Your task to perform on an android device: open device folders in google photos Image 0: 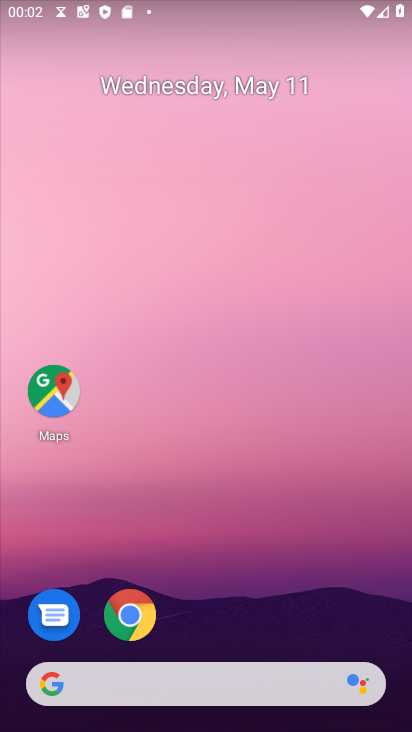
Step 0: drag from (217, 539) to (315, 65)
Your task to perform on an android device: open device folders in google photos Image 1: 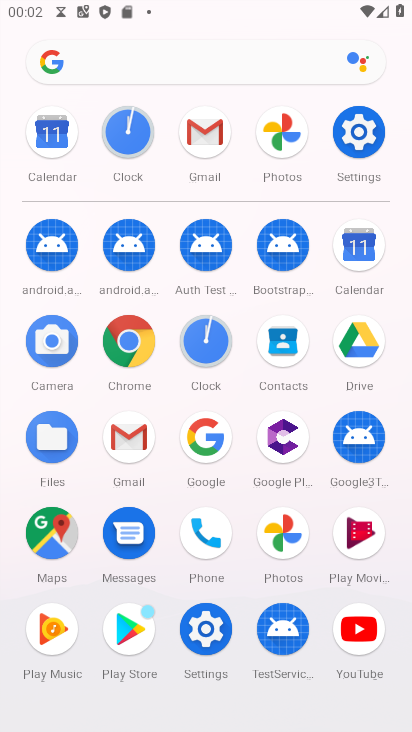
Step 1: click (288, 129)
Your task to perform on an android device: open device folders in google photos Image 2: 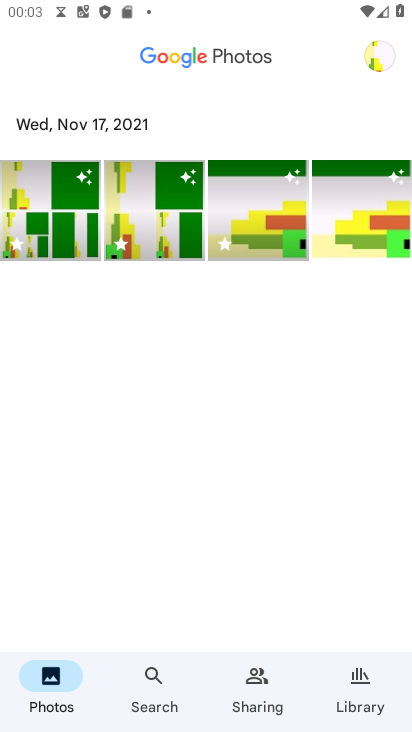
Step 2: click (255, 677)
Your task to perform on an android device: open device folders in google photos Image 3: 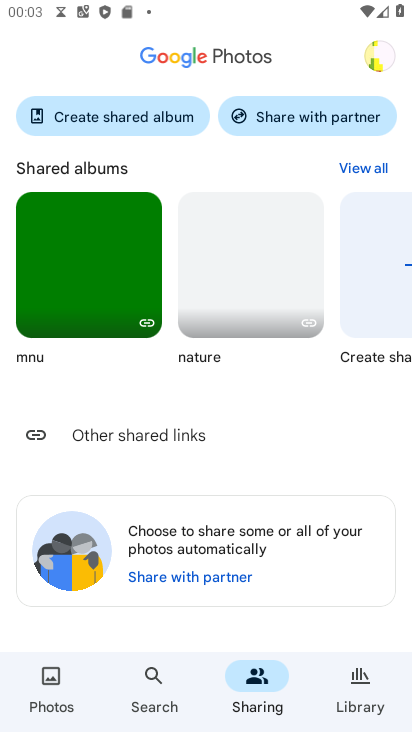
Step 3: drag from (165, 489) to (207, 439)
Your task to perform on an android device: open device folders in google photos Image 4: 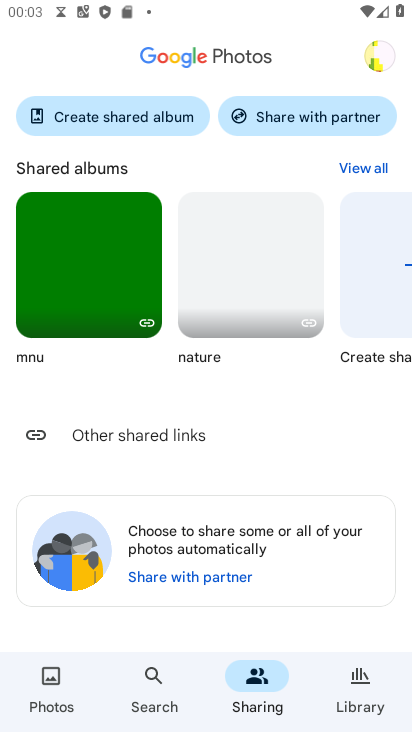
Step 4: drag from (203, 455) to (280, 369)
Your task to perform on an android device: open device folders in google photos Image 5: 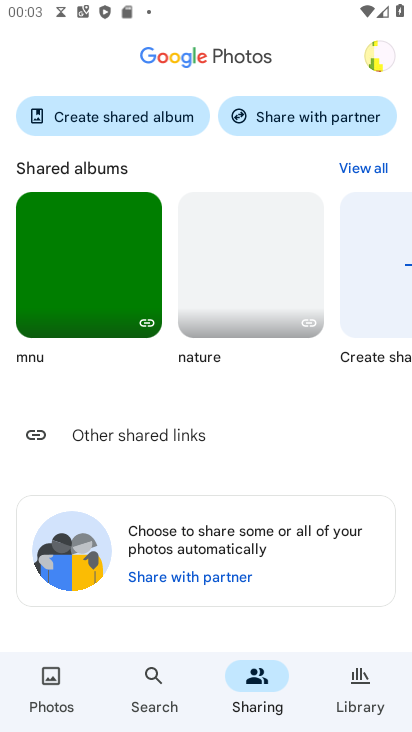
Step 5: click (160, 671)
Your task to perform on an android device: open device folders in google photos Image 6: 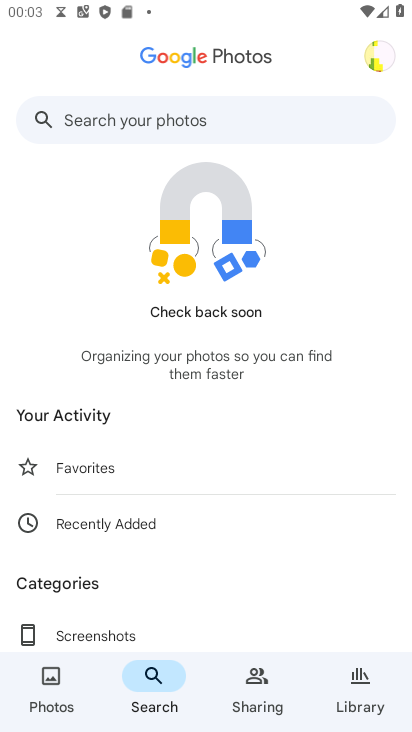
Step 6: drag from (141, 573) to (211, 472)
Your task to perform on an android device: open device folders in google photos Image 7: 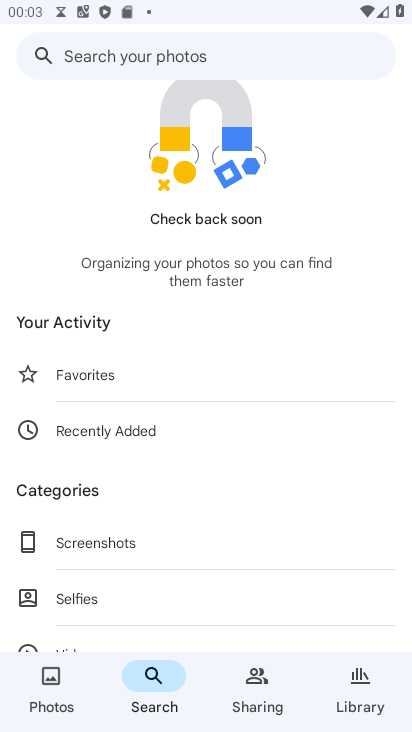
Step 7: drag from (147, 610) to (247, 502)
Your task to perform on an android device: open device folders in google photos Image 8: 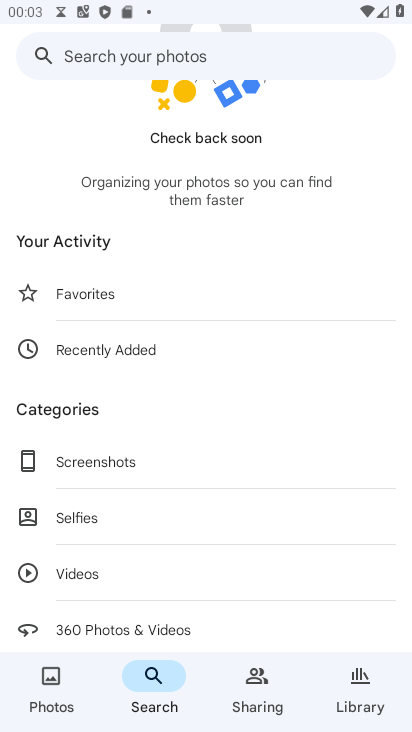
Step 8: drag from (200, 551) to (257, 475)
Your task to perform on an android device: open device folders in google photos Image 9: 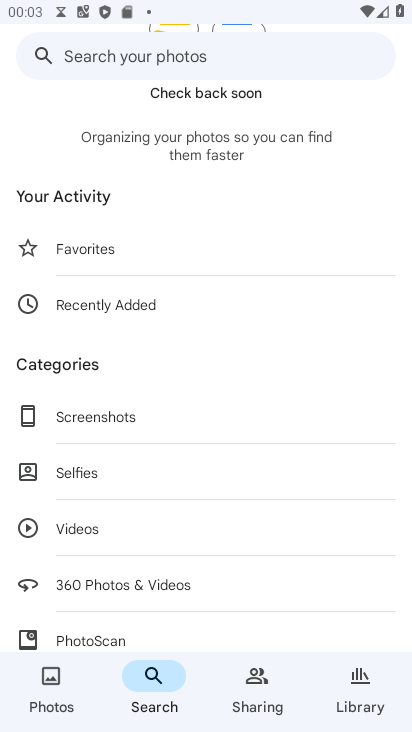
Step 9: drag from (214, 541) to (290, 445)
Your task to perform on an android device: open device folders in google photos Image 10: 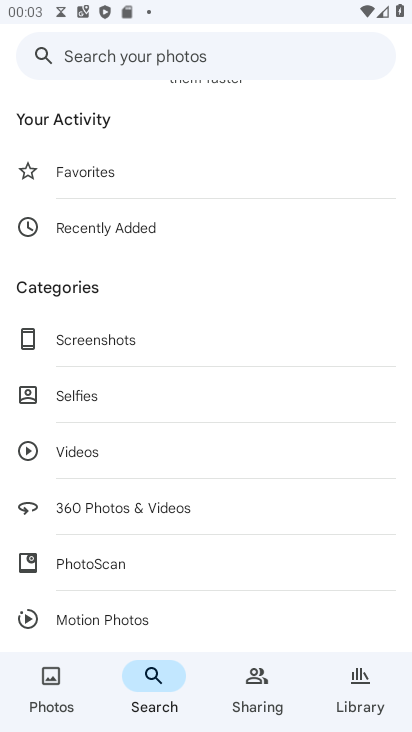
Step 10: drag from (180, 587) to (218, 484)
Your task to perform on an android device: open device folders in google photos Image 11: 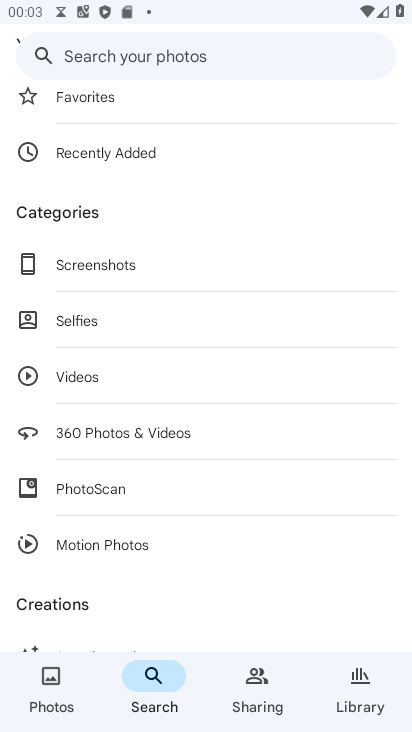
Step 11: drag from (156, 554) to (231, 430)
Your task to perform on an android device: open device folders in google photos Image 12: 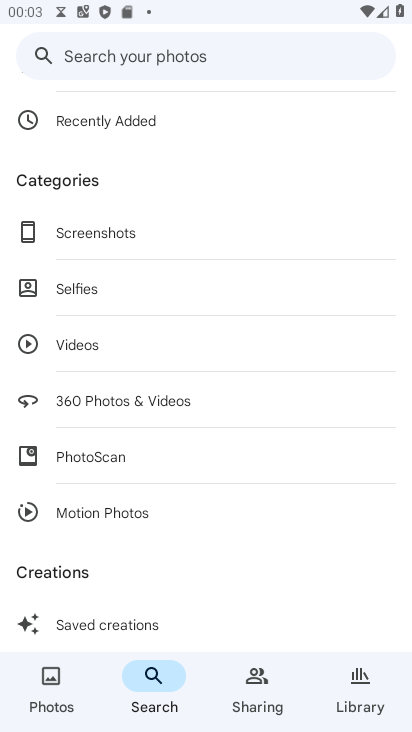
Step 12: click (103, 624)
Your task to perform on an android device: open device folders in google photos Image 13: 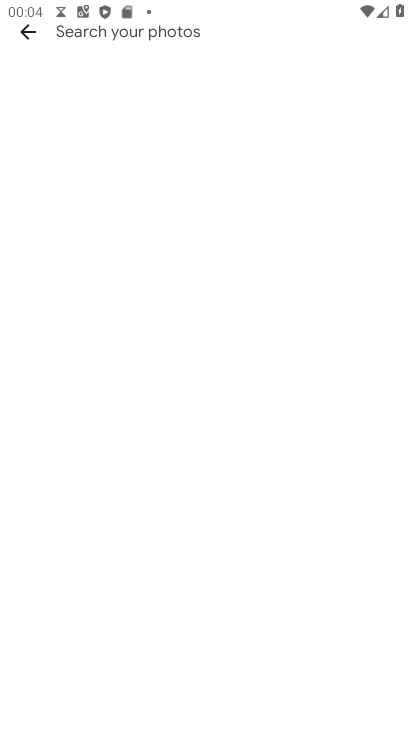
Step 13: drag from (183, 239) to (198, 457)
Your task to perform on an android device: open device folders in google photos Image 14: 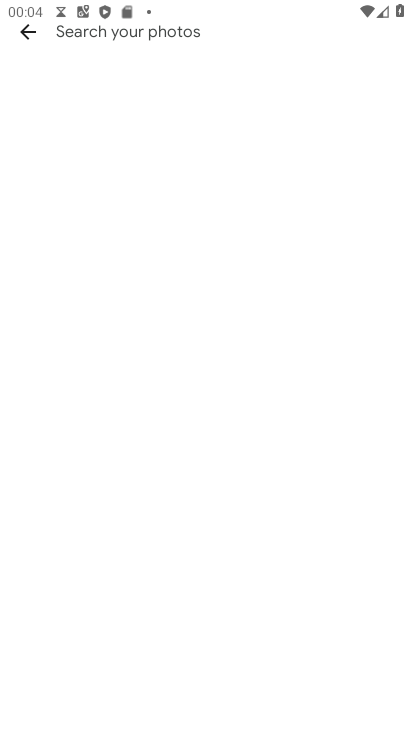
Step 14: press back button
Your task to perform on an android device: open device folders in google photos Image 15: 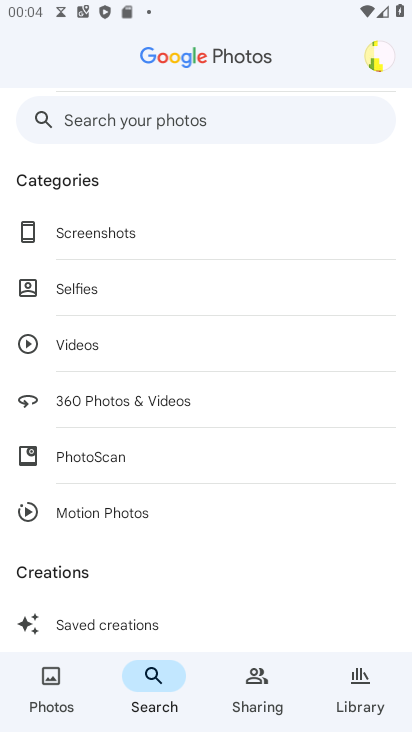
Step 15: drag from (114, 610) to (235, 425)
Your task to perform on an android device: open device folders in google photos Image 16: 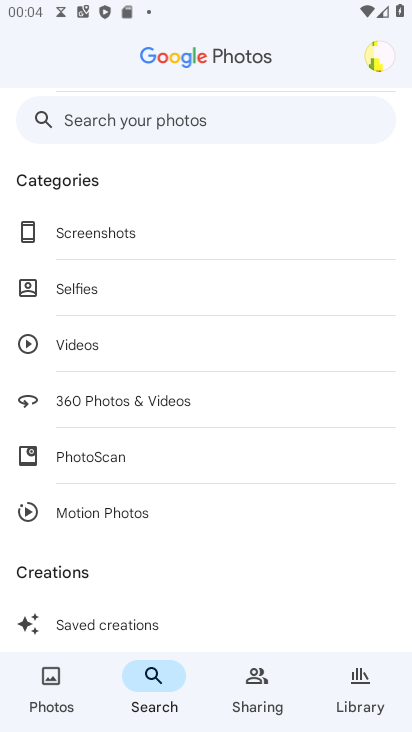
Step 16: click (43, 677)
Your task to perform on an android device: open device folders in google photos Image 17: 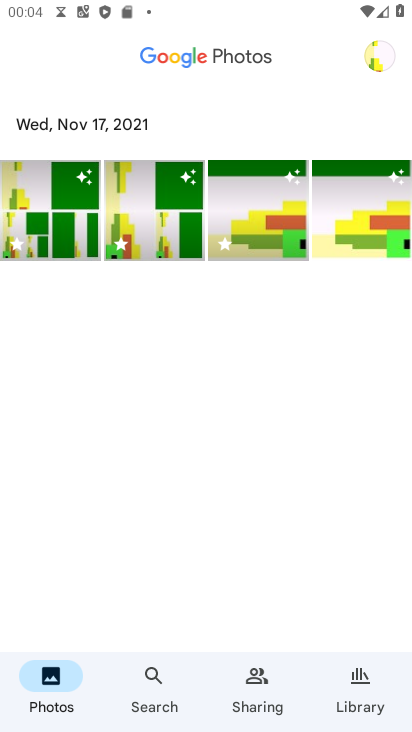
Step 17: task complete